Your task to perform on an android device: Open CNN.com Image 0: 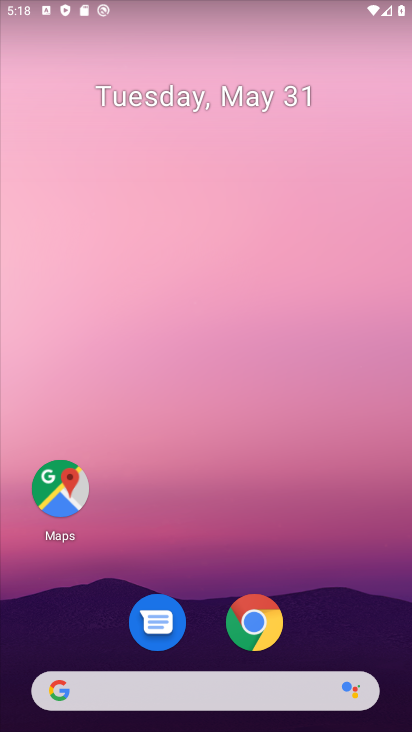
Step 0: drag from (345, 662) to (354, 1)
Your task to perform on an android device: Open CNN.com Image 1: 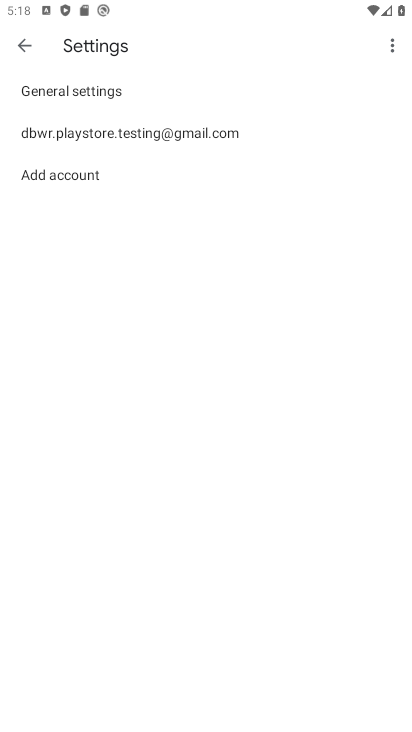
Step 1: press home button
Your task to perform on an android device: Open CNN.com Image 2: 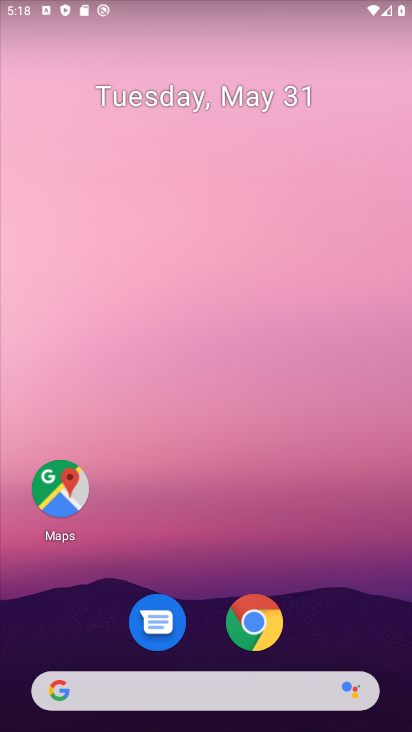
Step 2: drag from (177, 675) to (207, 148)
Your task to perform on an android device: Open CNN.com Image 3: 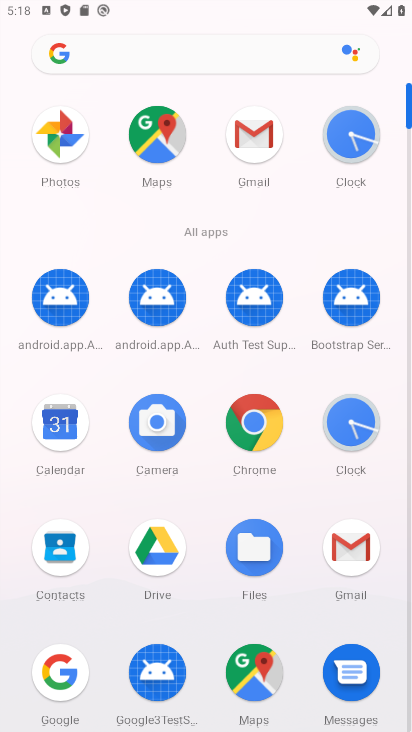
Step 3: click (260, 416)
Your task to perform on an android device: Open CNN.com Image 4: 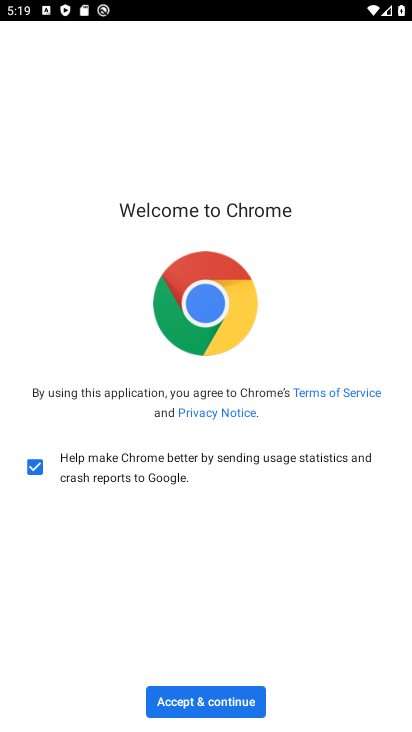
Step 4: click (209, 701)
Your task to perform on an android device: Open CNN.com Image 5: 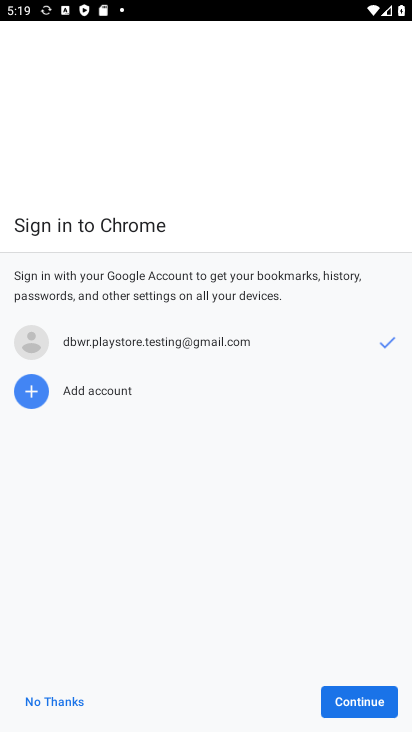
Step 5: click (380, 706)
Your task to perform on an android device: Open CNN.com Image 6: 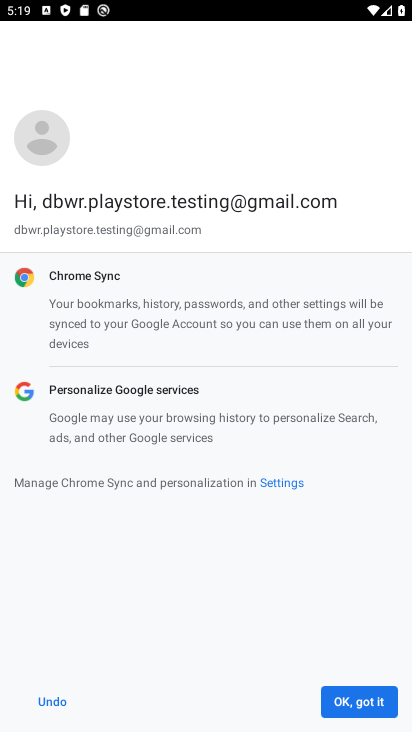
Step 6: click (57, 708)
Your task to perform on an android device: Open CNN.com Image 7: 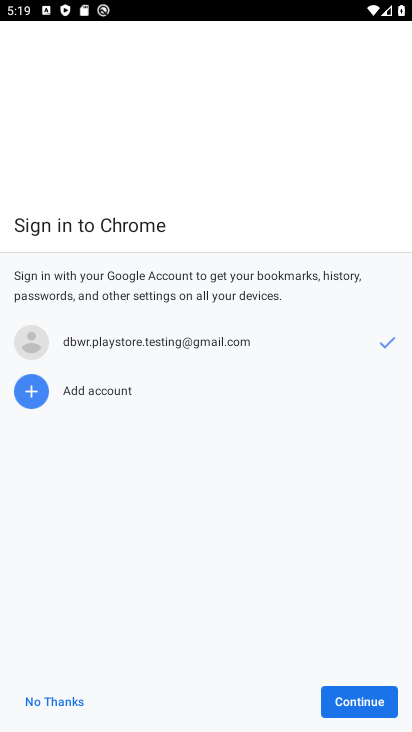
Step 7: click (57, 708)
Your task to perform on an android device: Open CNN.com Image 8: 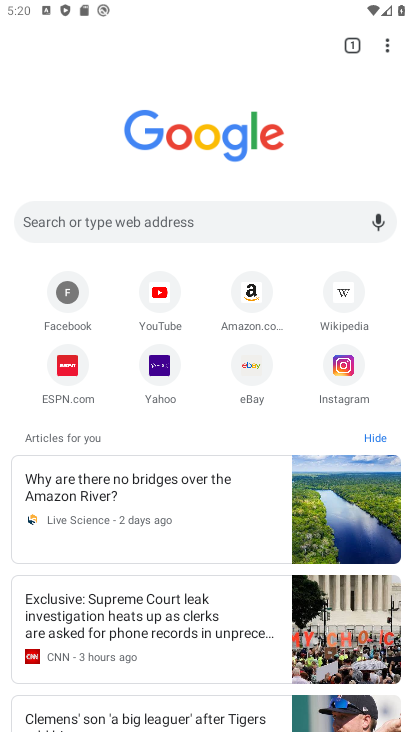
Step 8: click (276, 227)
Your task to perform on an android device: Open CNN.com Image 9: 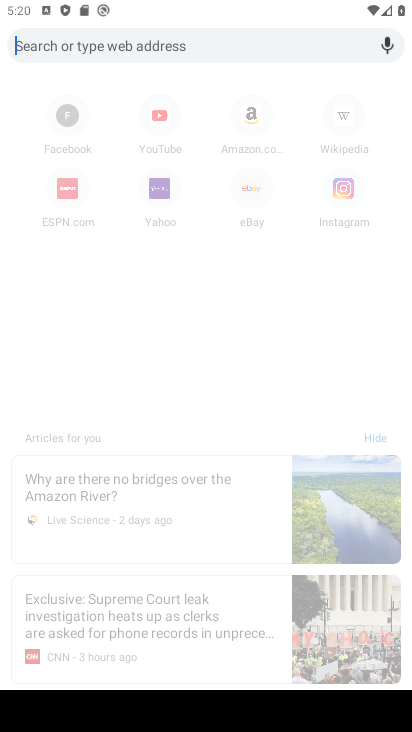
Step 9: type "cnn.com"
Your task to perform on an android device: Open CNN.com Image 10: 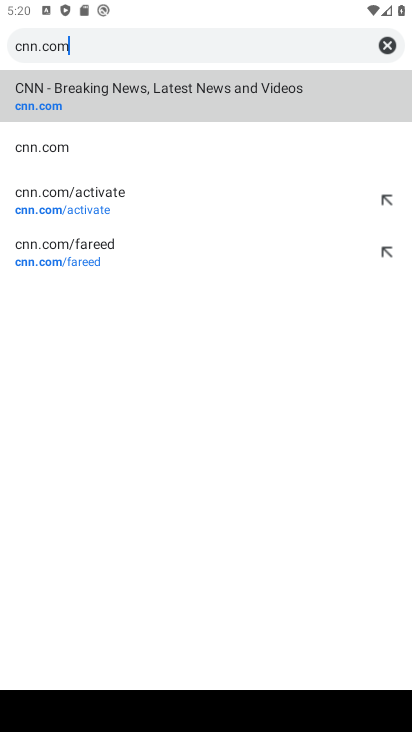
Step 10: click (102, 117)
Your task to perform on an android device: Open CNN.com Image 11: 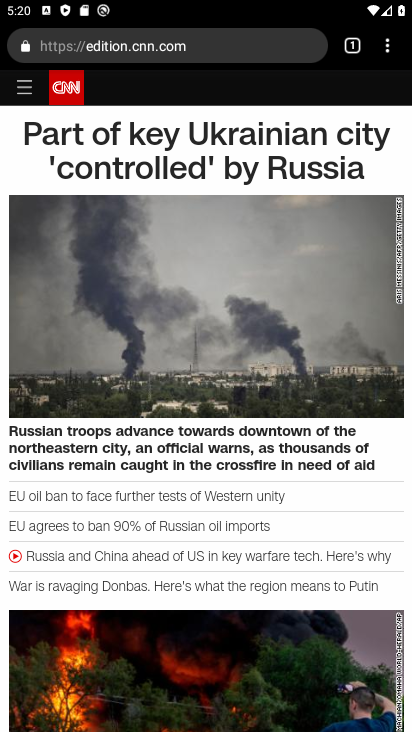
Step 11: task complete